Your task to perform on an android device: turn off data saver in the chrome app Image 0: 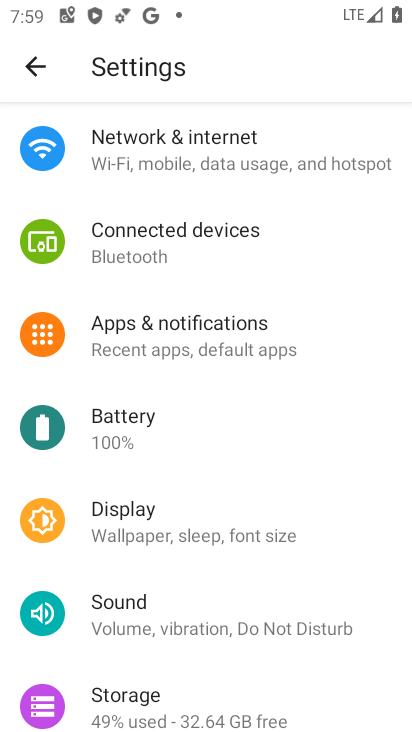
Step 0: press home button
Your task to perform on an android device: turn off data saver in the chrome app Image 1: 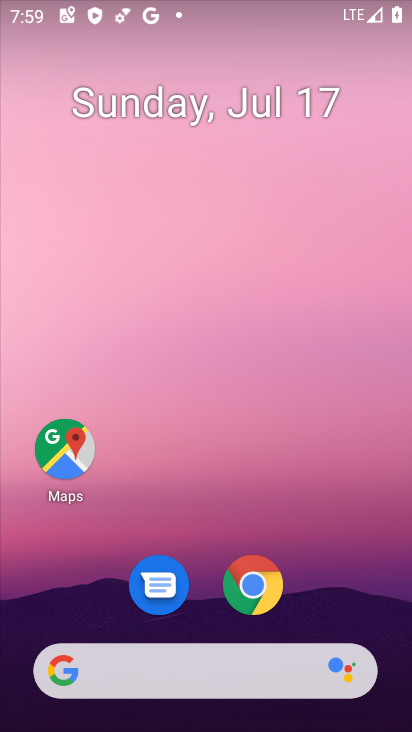
Step 1: click (260, 608)
Your task to perform on an android device: turn off data saver in the chrome app Image 2: 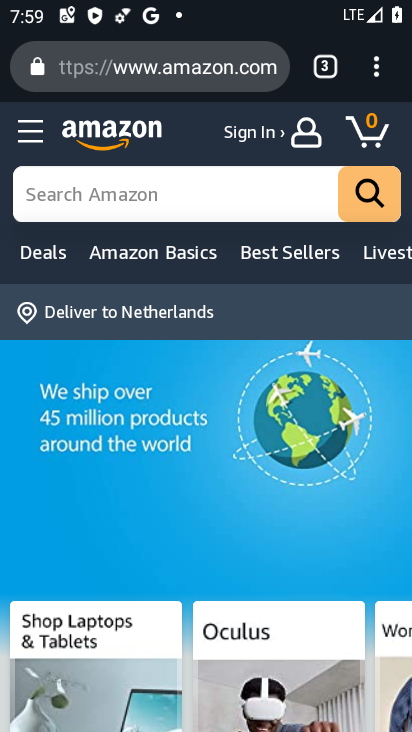
Step 2: click (371, 71)
Your task to perform on an android device: turn off data saver in the chrome app Image 3: 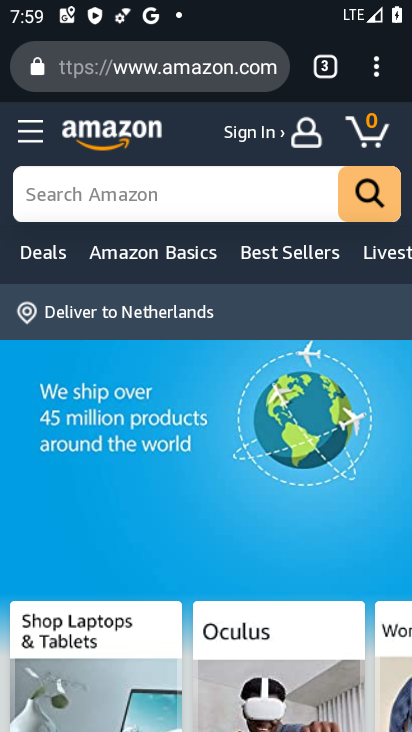
Step 3: click (371, 71)
Your task to perform on an android device: turn off data saver in the chrome app Image 4: 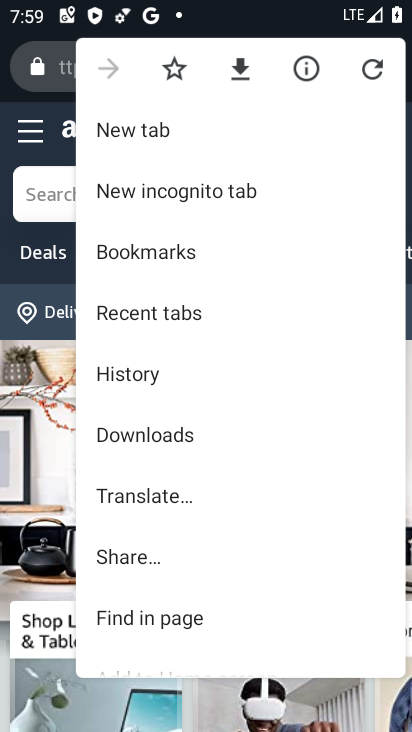
Step 4: drag from (162, 538) to (188, 173)
Your task to perform on an android device: turn off data saver in the chrome app Image 5: 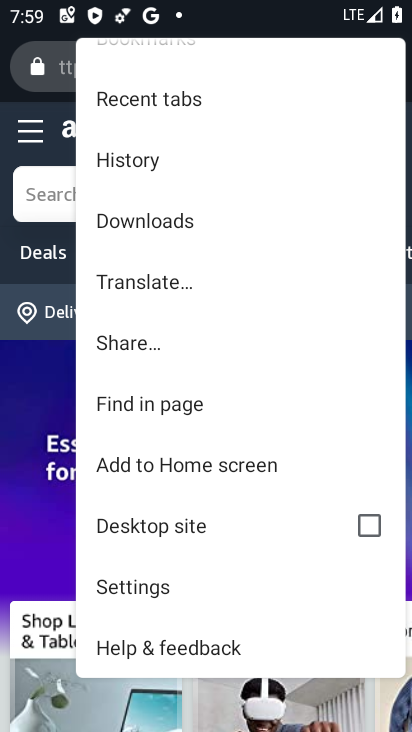
Step 5: click (158, 594)
Your task to perform on an android device: turn off data saver in the chrome app Image 6: 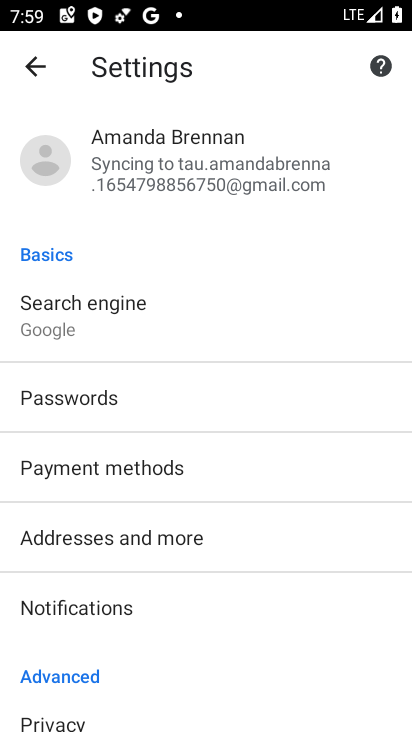
Step 6: drag from (205, 653) to (248, 172)
Your task to perform on an android device: turn off data saver in the chrome app Image 7: 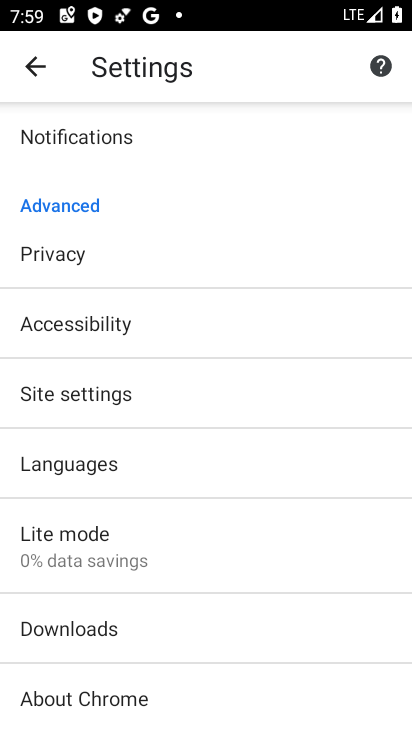
Step 7: click (132, 553)
Your task to perform on an android device: turn off data saver in the chrome app Image 8: 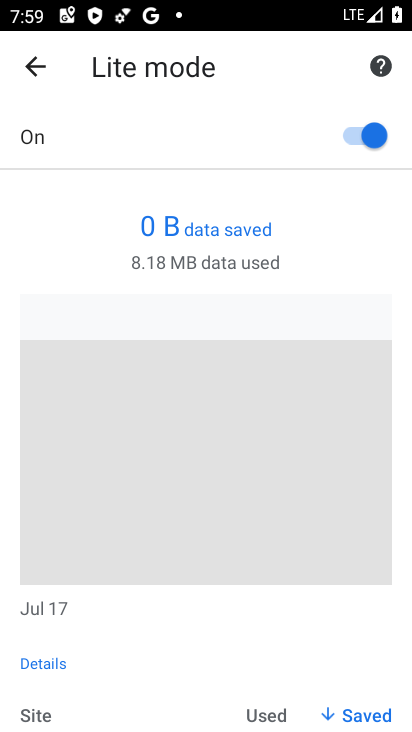
Step 8: click (355, 128)
Your task to perform on an android device: turn off data saver in the chrome app Image 9: 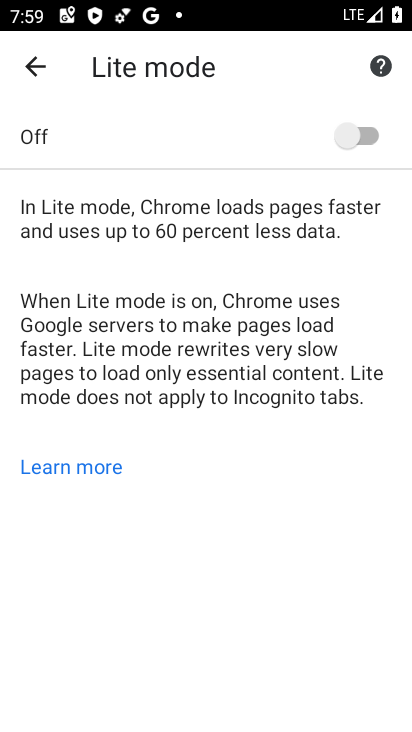
Step 9: task complete